Your task to perform on an android device: turn on priority inbox in the gmail app Image 0: 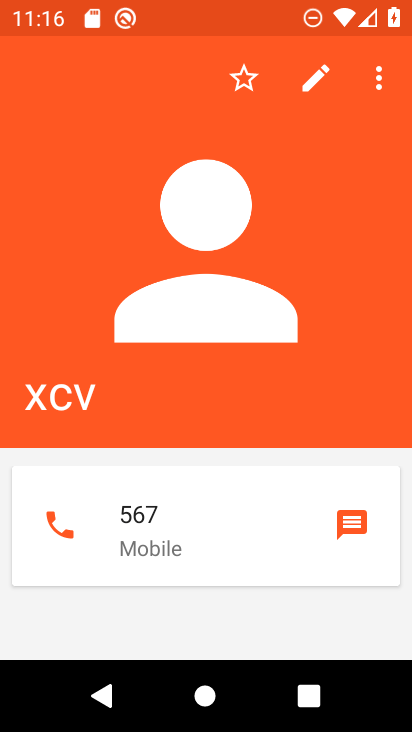
Step 0: press home button
Your task to perform on an android device: turn on priority inbox in the gmail app Image 1: 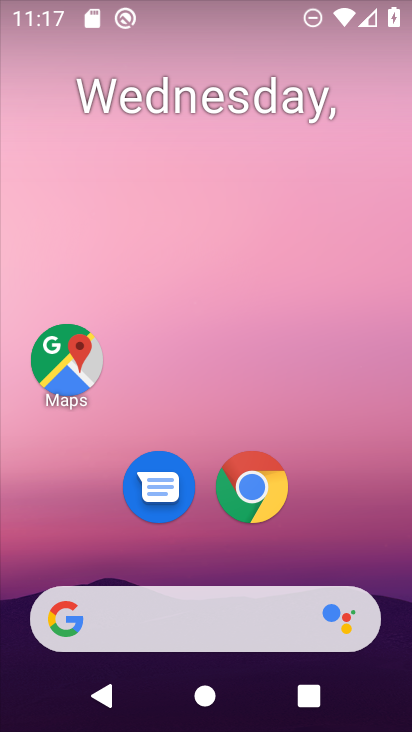
Step 1: drag from (333, 523) to (183, 90)
Your task to perform on an android device: turn on priority inbox in the gmail app Image 2: 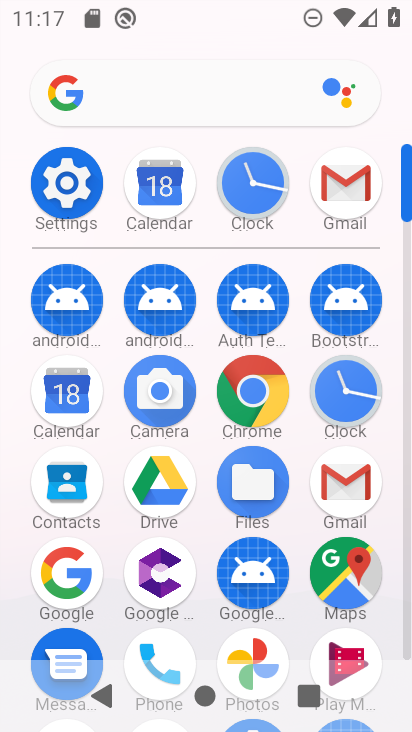
Step 2: click (344, 487)
Your task to perform on an android device: turn on priority inbox in the gmail app Image 3: 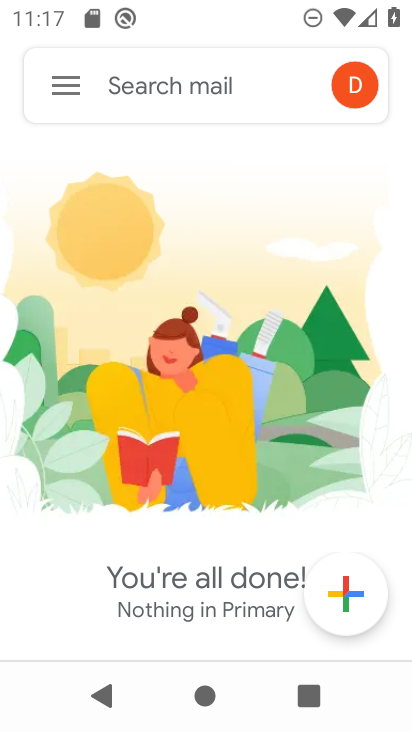
Step 3: click (59, 79)
Your task to perform on an android device: turn on priority inbox in the gmail app Image 4: 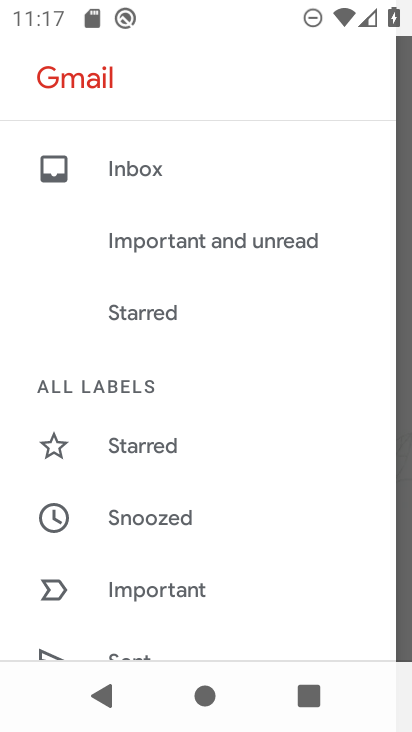
Step 4: drag from (236, 509) to (207, 201)
Your task to perform on an android device: turn on priority inbox in the gmail app Image 5: 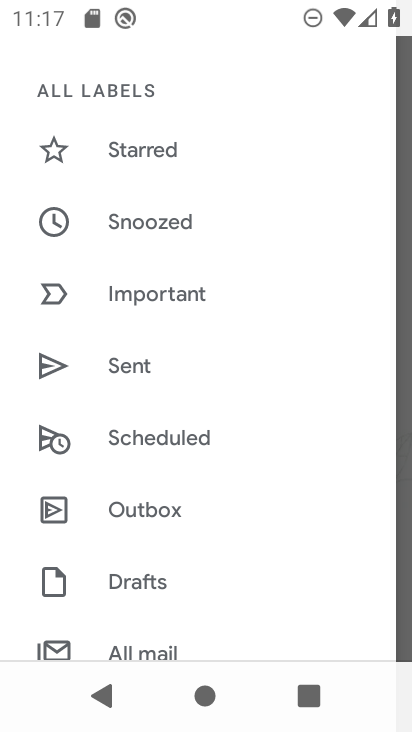
Step 5: drag from (232, 499) to (236, 159)
Your task to perform on an android device: turn on priority inbox in the gmail app Image 6: 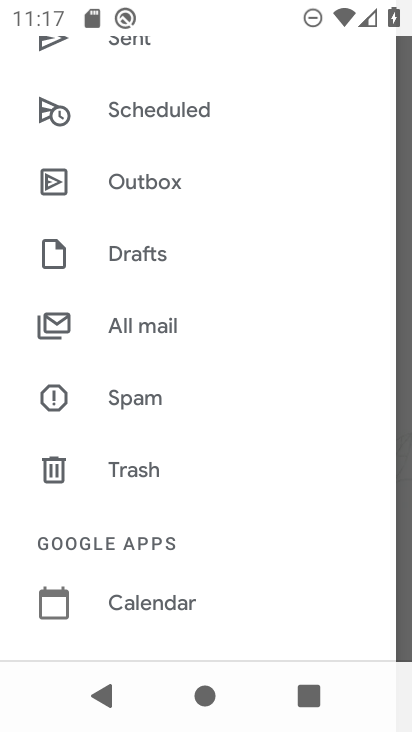
Step 6: drag from (210, 523) to (191, 173)
Your task to perform on an android device: turn on priority inbox in the gmail app Image 7: 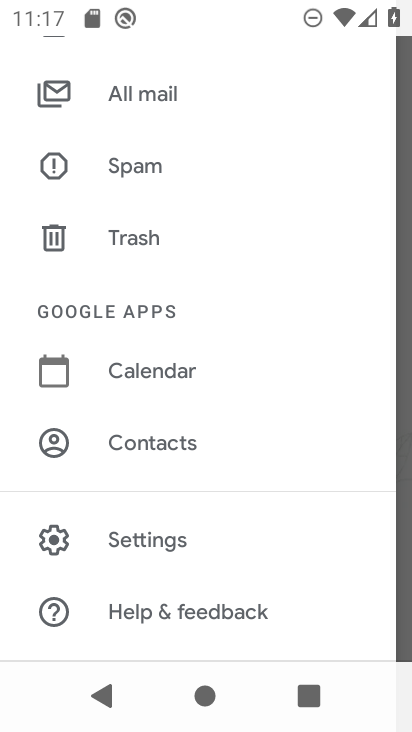
Step 7: click (141, 533)
Your task to perform on an android device: turn on priority inbox in the gmail app Image 8: 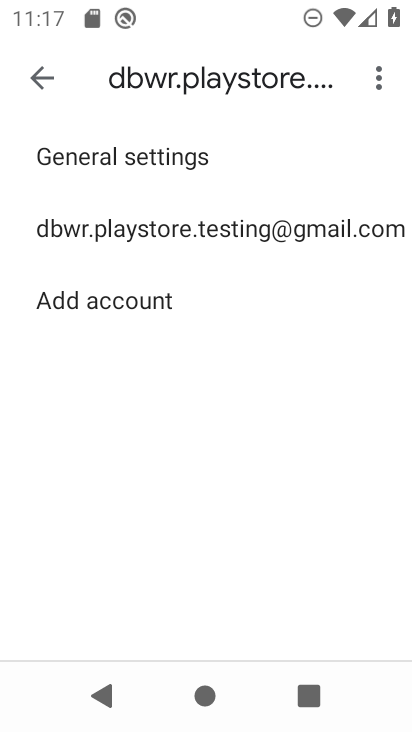
Step 8: click (112, 215)
Your task to perform on an android device: turn on priority inbox in the gmail app Image 9: 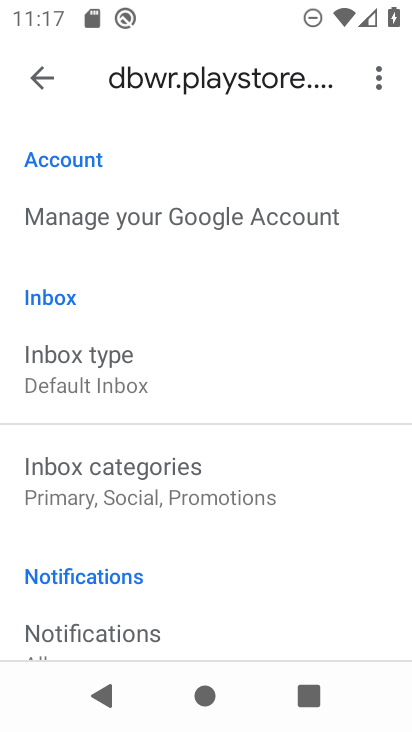
Step 9: click (84, 352)
Your task to perform on an android device: turn on priority inbox in the gmail app Image 10: 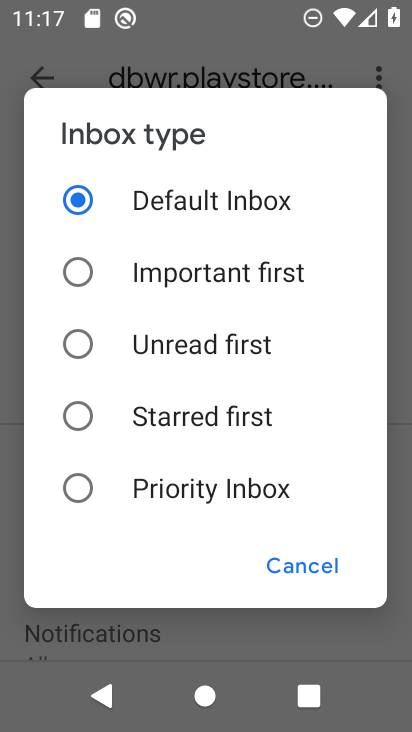
Step 10: click (72, 484)
Your task to perform on an android device: turn on priority inbox in the gmail app Image 11: 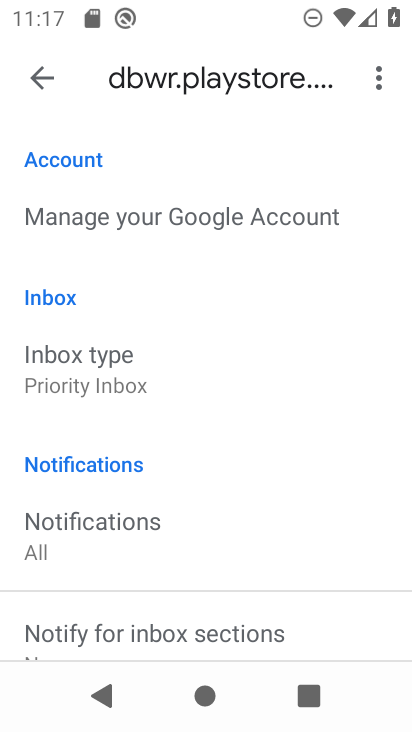
Step 11: task complete